Your task to perform on an android device: Open Reddit.com Image 0: 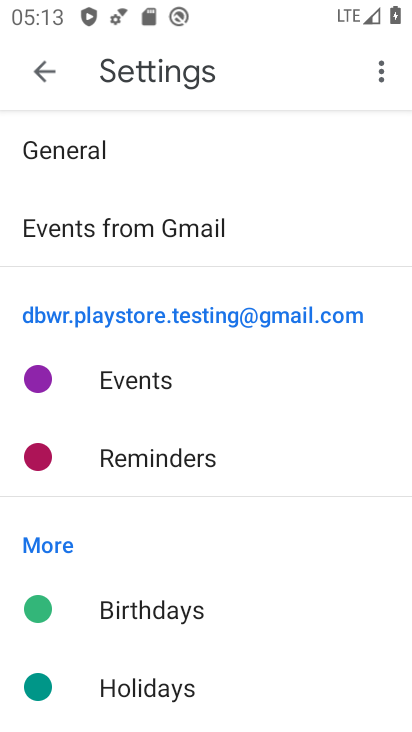
Step 0: press home button
Your task to perform on an android device: Open Reddit.com Image 1: 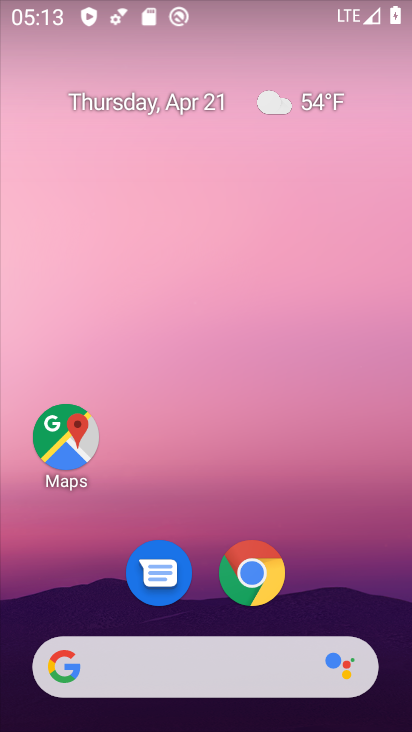
Step 1: click (254, 573)
Your task to perform on an android device: Open Reddit.com Image 2: 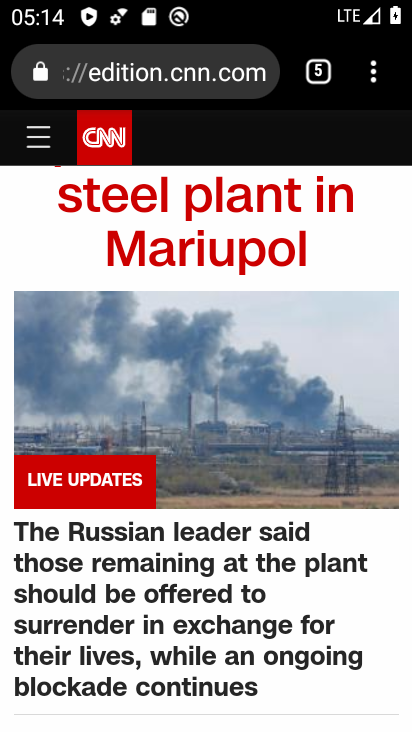
Step 2: click (160, 70)
Your task to perform on an android device: Open Reddit.com Image 3: 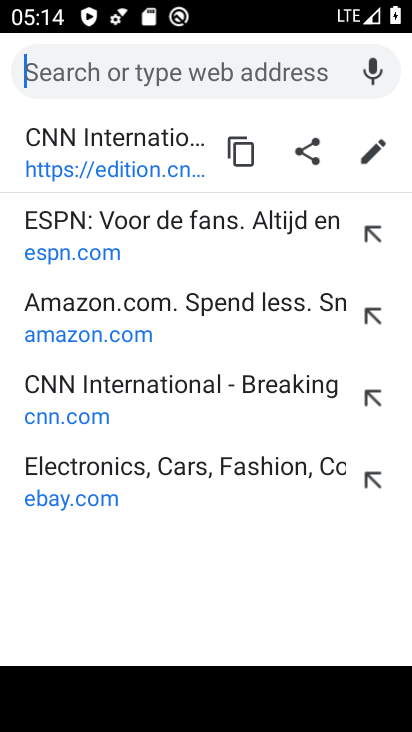
Step 3: type "reddit.com"
Your task to perform on an android device: Open Reddit.com Image 4: 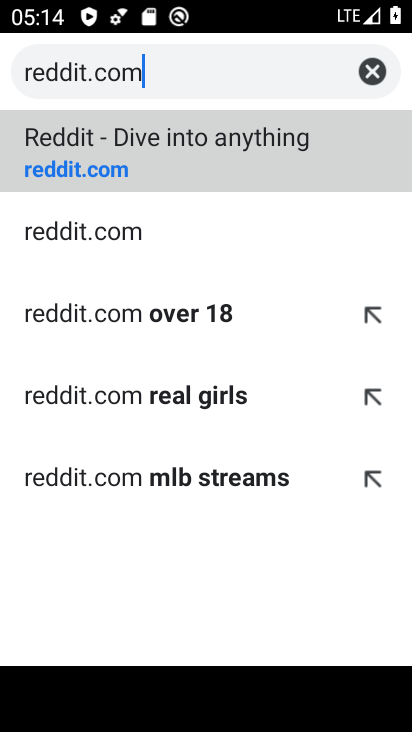
Step 4: click (82, 138)
Your task to perform on an android device: Open Reddit.com Image 5: 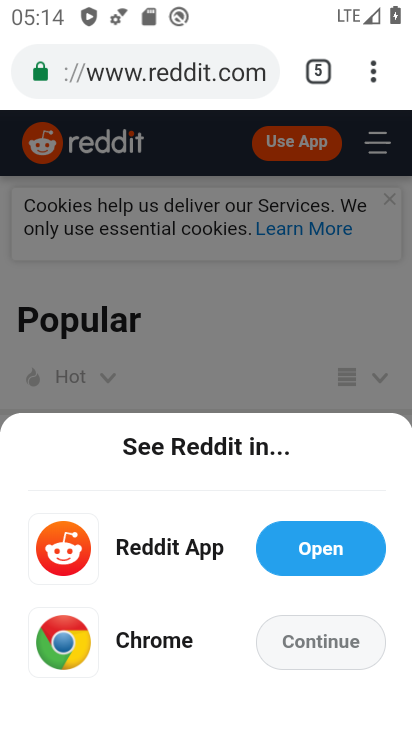
Step 5: task complete